Your task to perform on an android device: check out phone information Image 0: 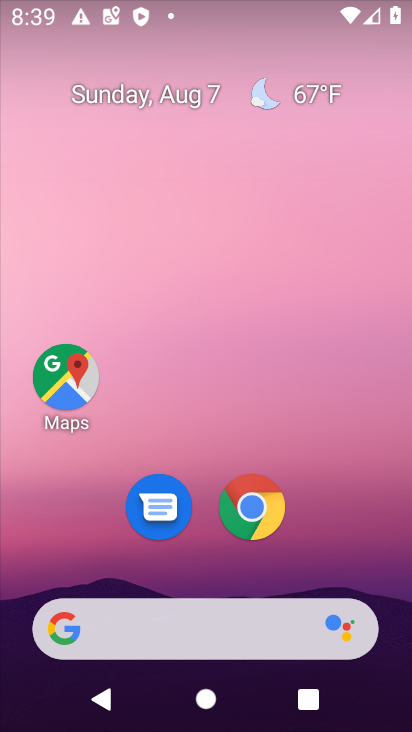
Step 0: drag from (164, 638) to (331, 83)
Your task to perform on an android device: check out phone information Image 1: 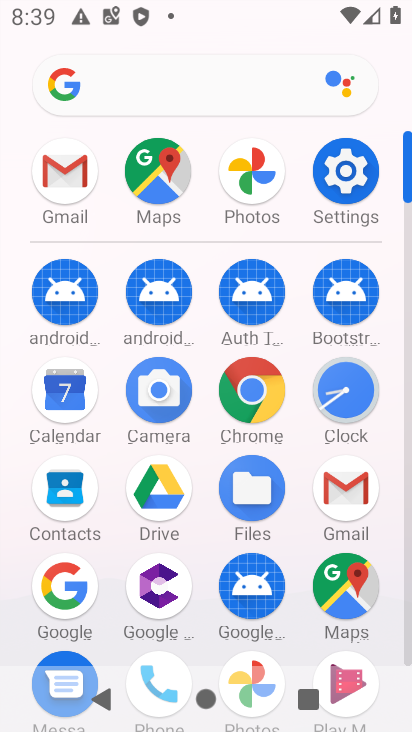
Step 1: click (358, 158)
Your task to perform on an android device: check out phone information Image 2: 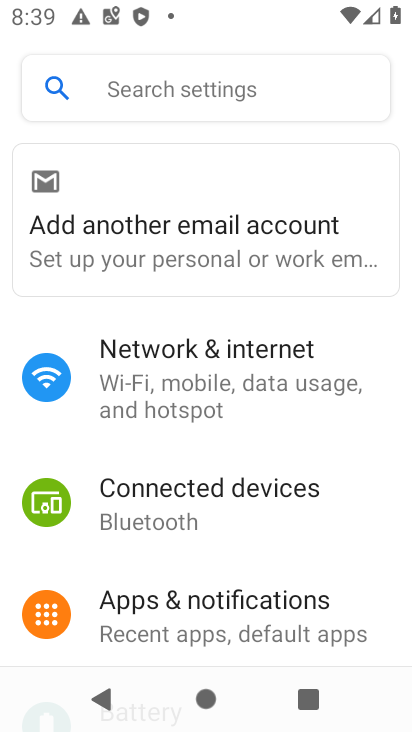
Step 2: drag from (249, 625) to (401, 42)
Your task to perform on an android device: check out phone information Image 3: 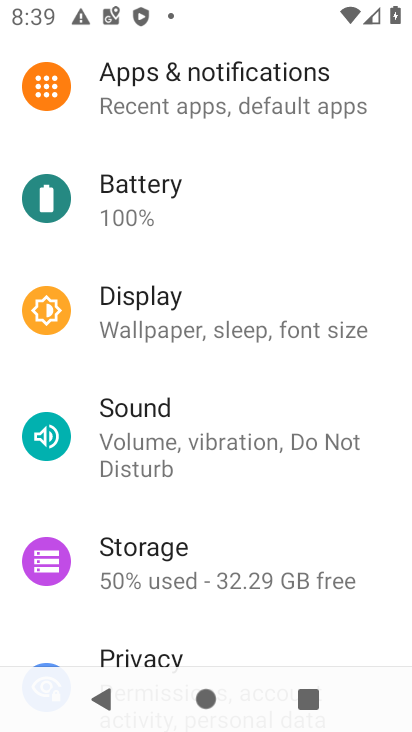
Step 3: drag from (217, 654) to (344, 66)
Your task to perform on an android device: check out phone information Image 4: 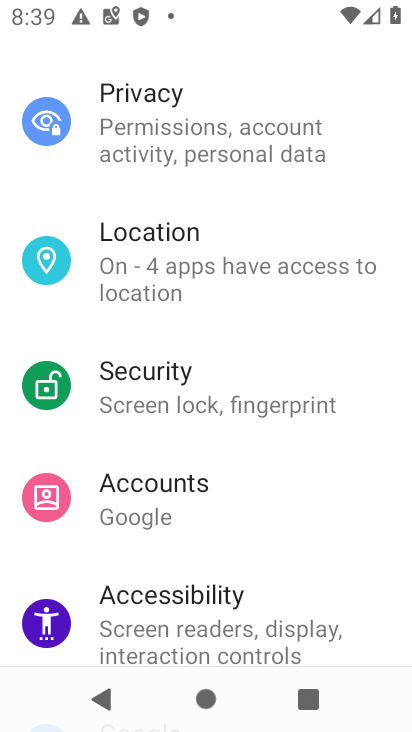
Step 4: drag from (280, 574) to (406, 124)
Your task to perform on an android device: check out phone information Image 5: 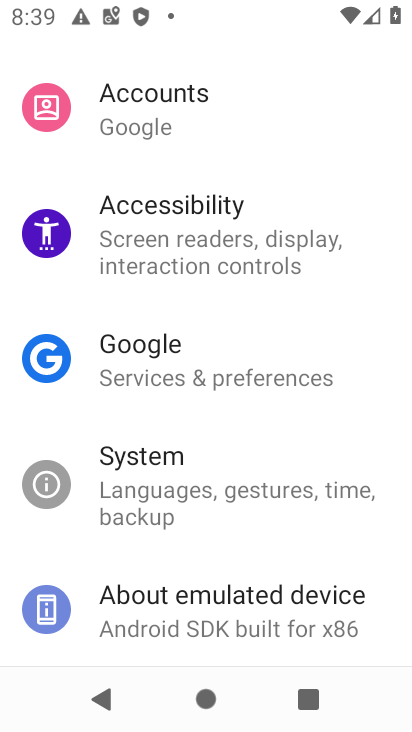
Step 5: drag from (279, 551) to (323, 135)
Your task to perform on an android device: check out phone information Image 6: 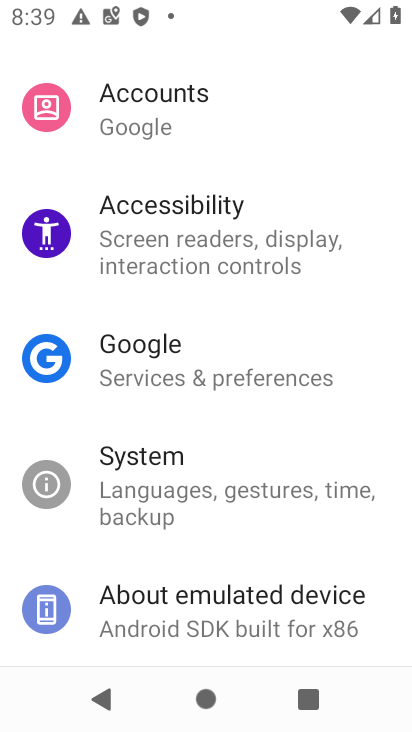
Step 6: click (216, 626)
Your task to perform on an android device: check out phone information Image 7: 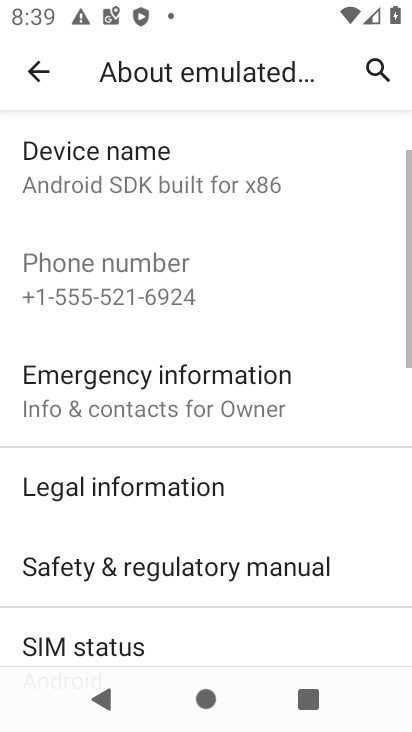
Step 7: click (132, 172)
Your task to perform on an android device: check out phone information Image 8: 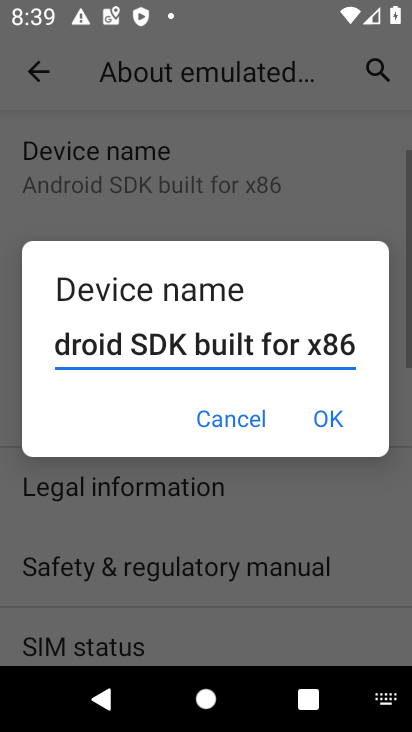
Step 8: click (332, 418)
Your task to perform on an android device: check out phone information Image 9: 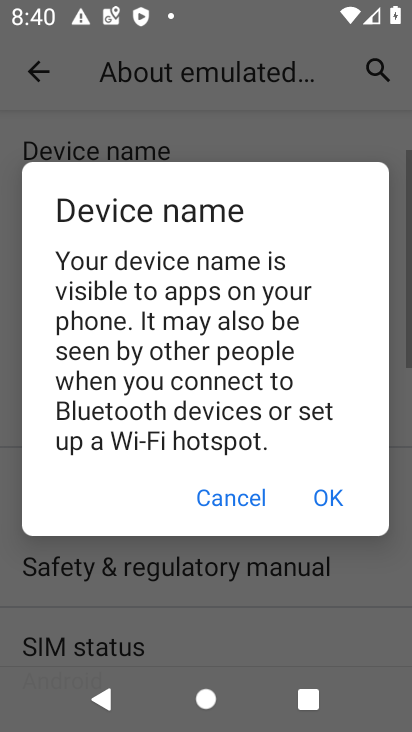
Step 9: click (245, 500)
Your task to perform on an android device: check out phone information Image 10: 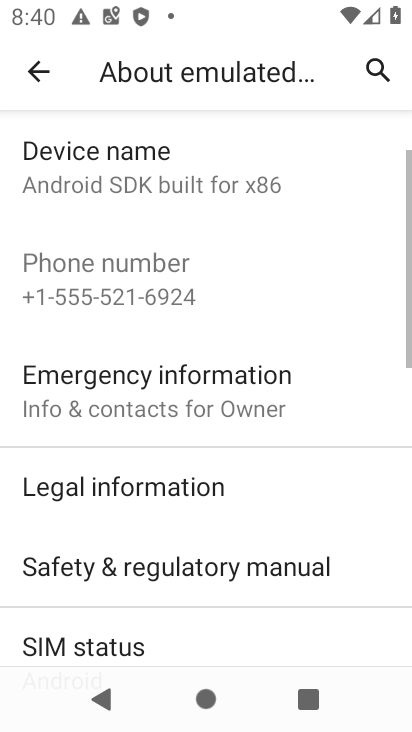
Step 10: task complete